Your task to perform on an android device: find photos in the google photos app Image 0: 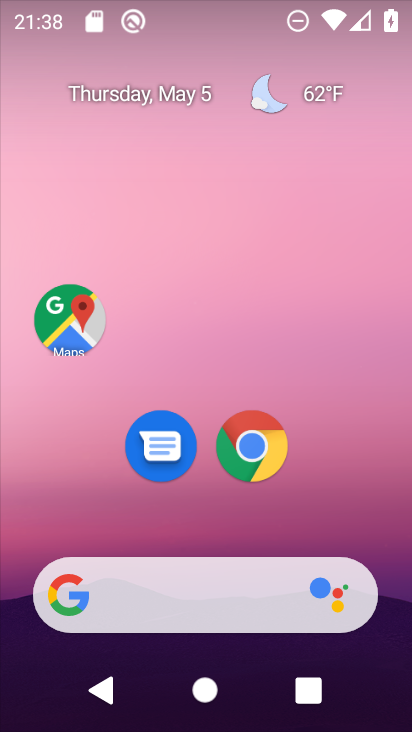
Step 0: drag from (131, 646) to (221, 260)
Your task to perform on an android device: find photos in the google photos app Image 1: 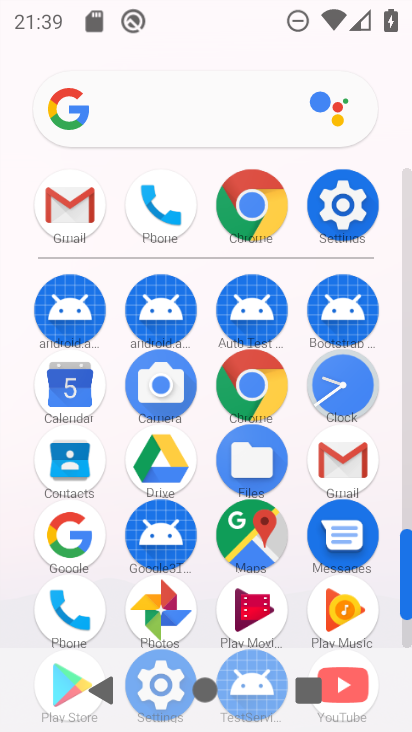
Step 1: click (159, 618)
Your task to perform on an android device: find photos in the google photos app Image 2: 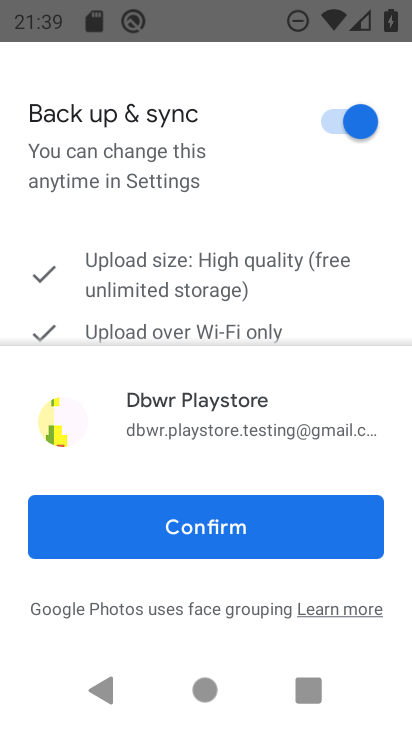
Step 2: click (203, 527)
Your task to perform on an android device: find photos in the google photos app Image 3: 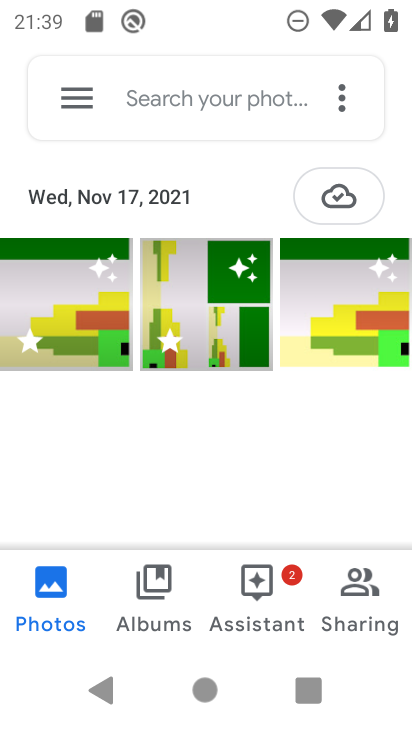
Step 3: click (52, 107)
Your task to perform on an android device: find photos in the google photos app Image 4: 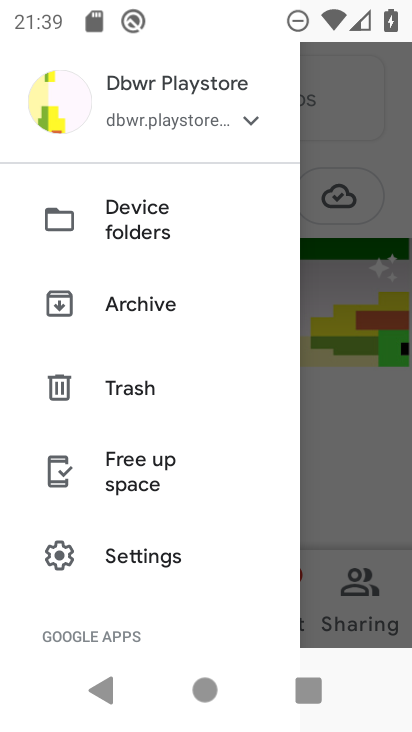
Step 4: click (359, 405)
Your task to perform on an android device: find photos in the google photos app Image 5: 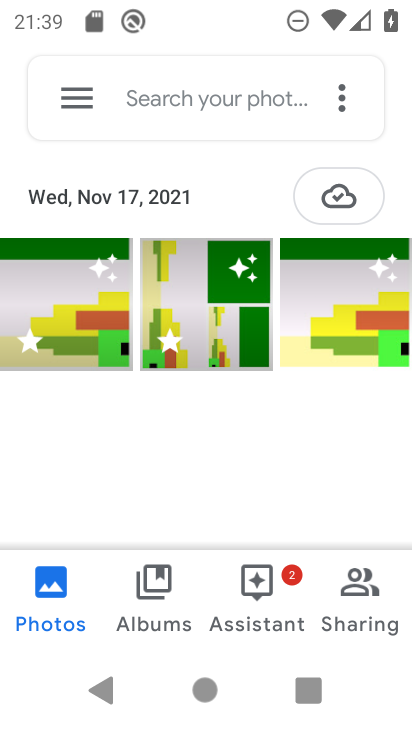
Step 5: task complete